Your task to perform on an android device: read, delete, or share a saved page in the chrome app Image 0: 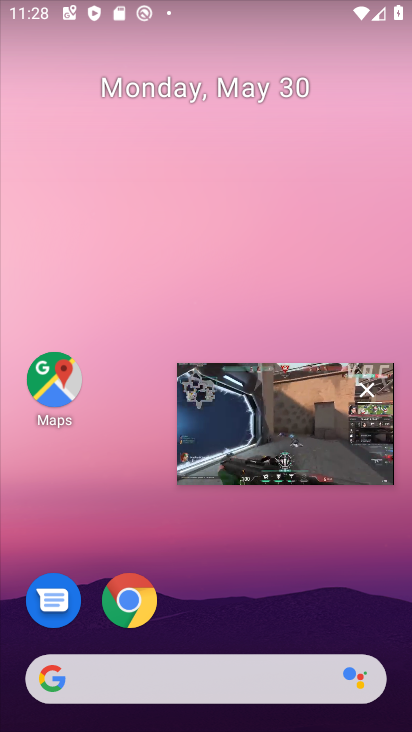
Step 0: click (384, 251)
Your task to perform on an android device: read, delete, or share a saved page in the chrome app Image 1: 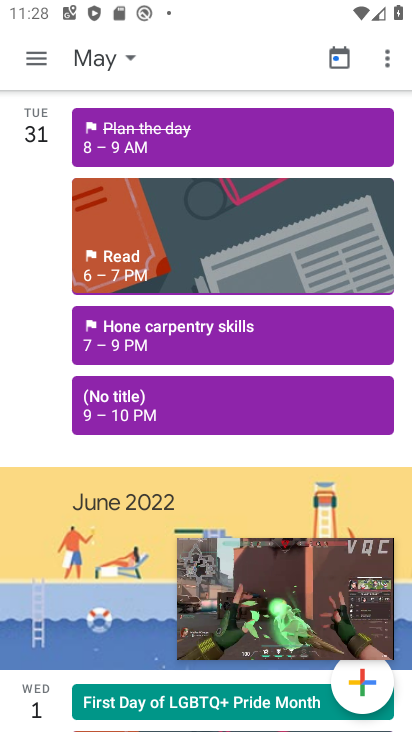
Step 1: press home button
Your task to perform on an android device: read, delete, or share a saved page in the chrome app Image 2: 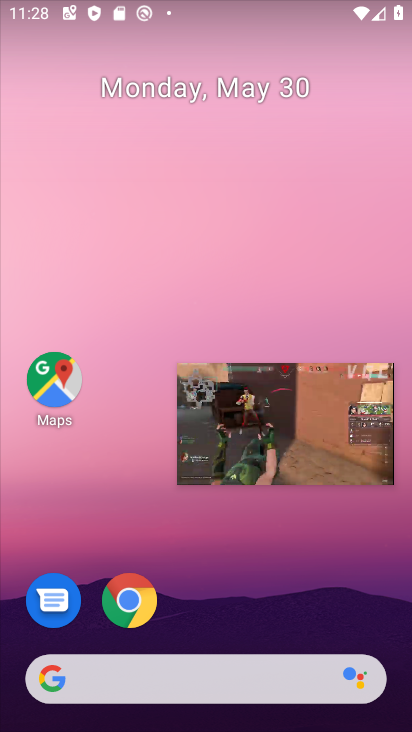
Step 2: click (377, 382)
Your task to perform on an android device: read, delete, or share a saved page in the chrome app Image 3: 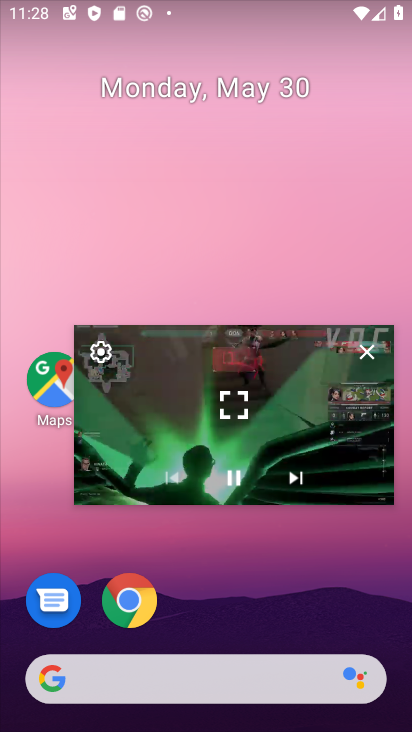
Step 3: click (362, 346)
Your task to perform on an android device: read, delete, or share a saved page in the chrome app Image 4: 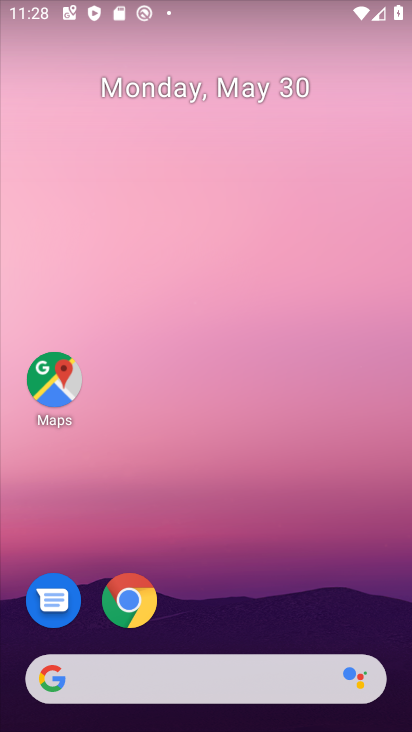
Step 4: click (132, 603)
Your task to perform on an android device: read, delete, or share a saved page in the chrome app Image 5: 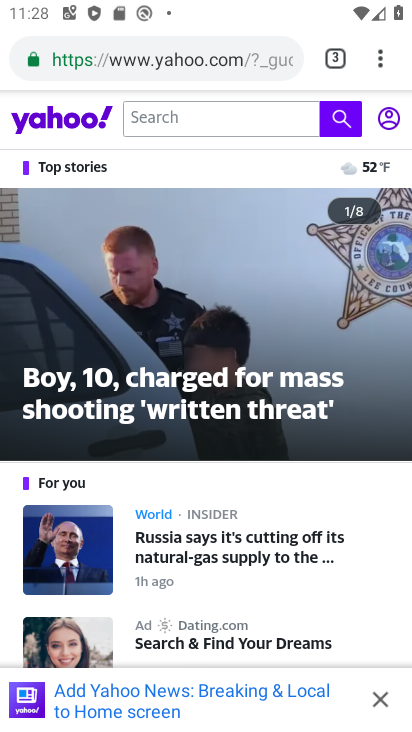
Step 5: click (382, 64)
Your task to perform on an android device: read, delete, or share a saved page in the chrome app Image 6: 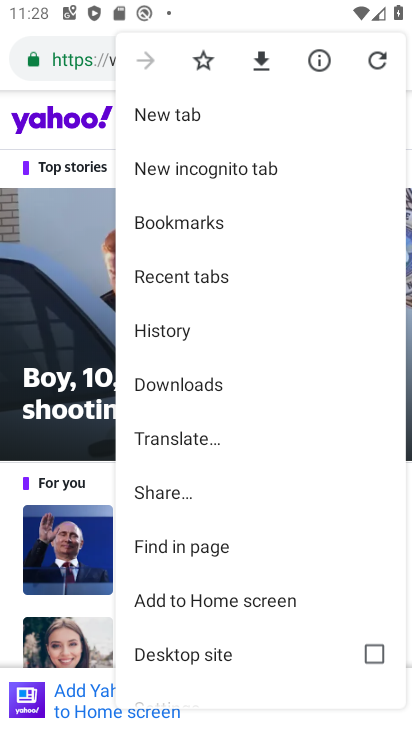
Step 6: click (164, 380)
Your task to perform on an android device: read, delete, or share a saved page in the chrome app Image 7: 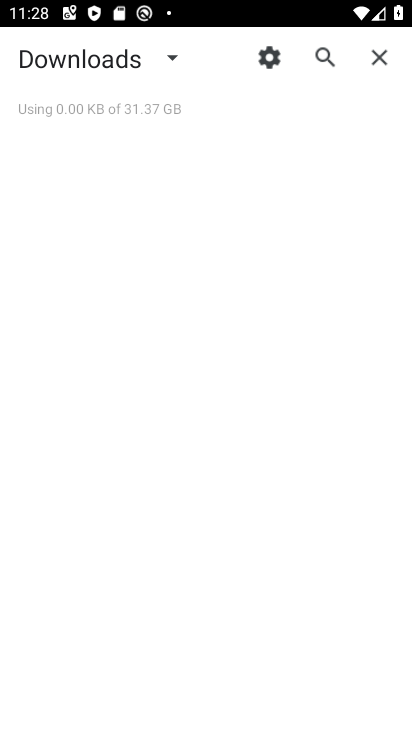
Step 7: click (174, 56)
Your task to perform on an android device: read, delete, or share a saved page in the chrome app Image 8: 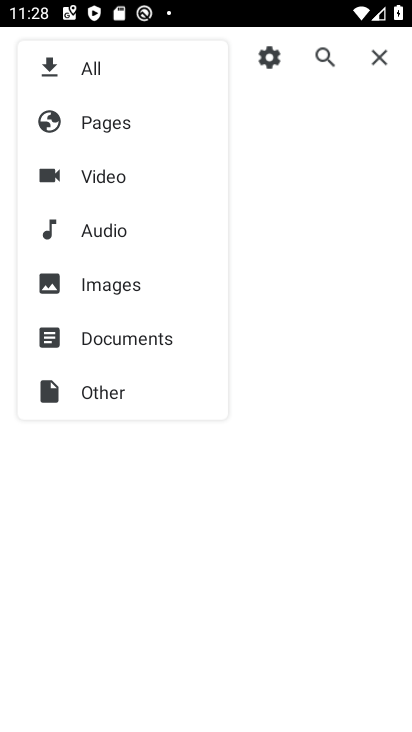
Step 8: click (102, 120)
Your task to perform on an android device: read, delete, or share a saved page in the chrome app Image 9: 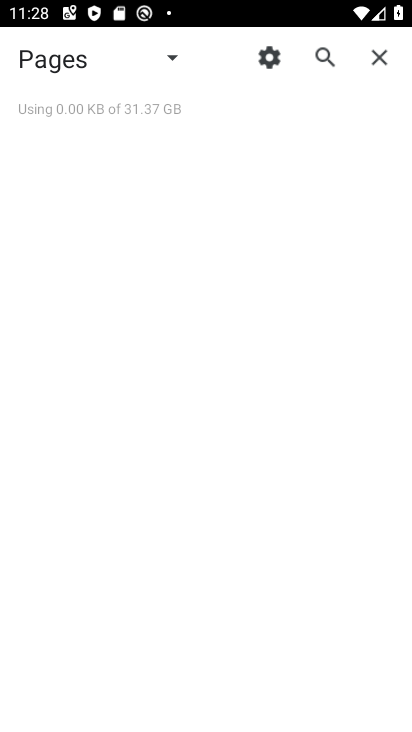
Step 9: task complete